Your task to perform on an android device: Open Wikipedia Image 0: 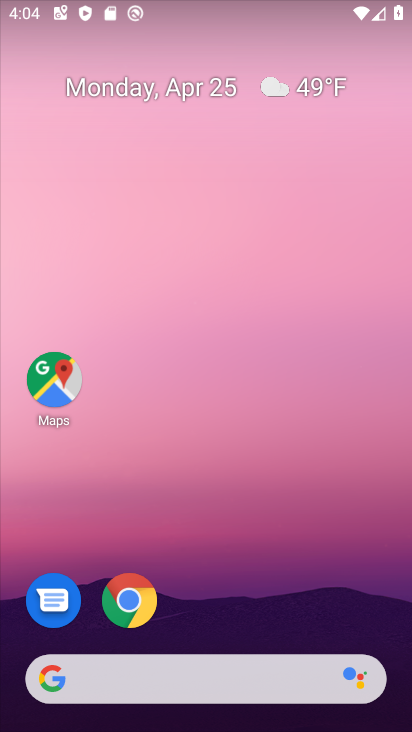
Step 0: click (132, 595)
Your task to perform on an android device: Open Wikipedia Image 1: 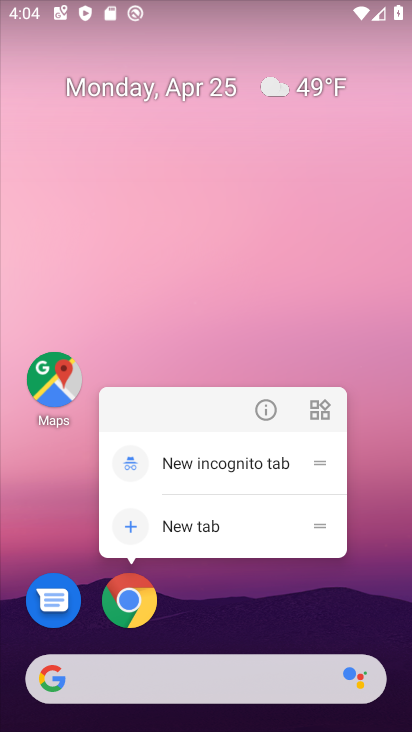
Step 1: click (139, 585)
Your task to perform on an android device: Open Wikipedia Image 2: 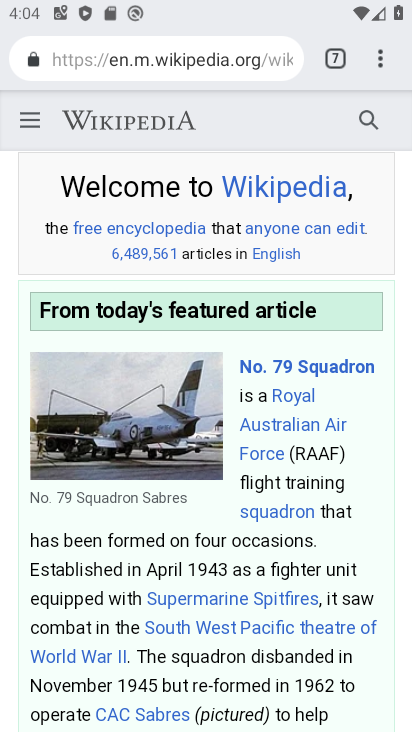
Step 2: task complete